Your task to perform on an android device: Open privacy settings Image 0: 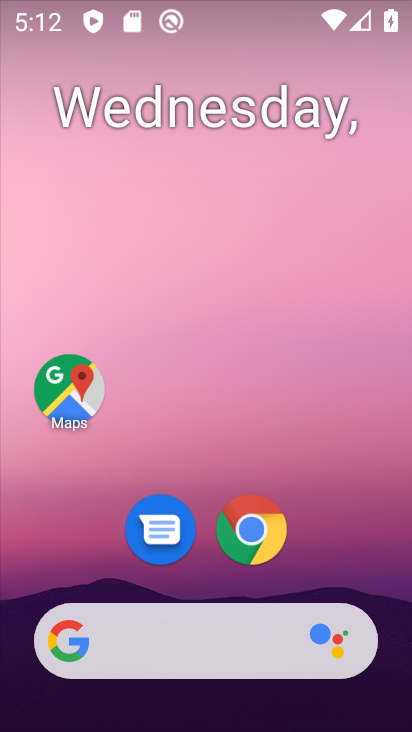
Step 0: drag from (304, 359) to (286, 62)
Your task to perform on an android device: Open privacy settings Image 1: 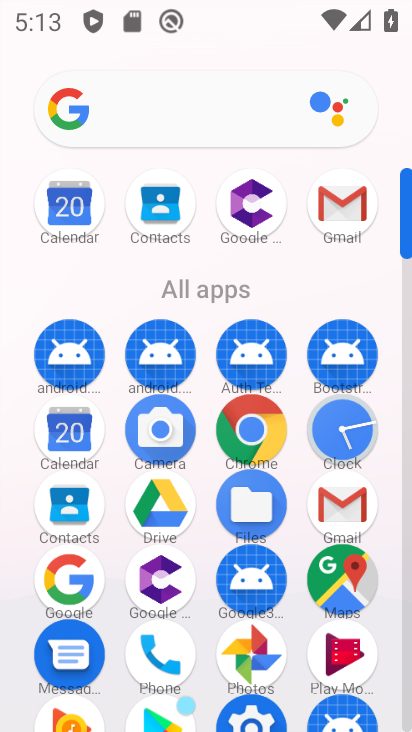
Step 1: drag from (17, 462) to (19, 188)
Your task to perform on an android device: Open privacy settings Image 2: 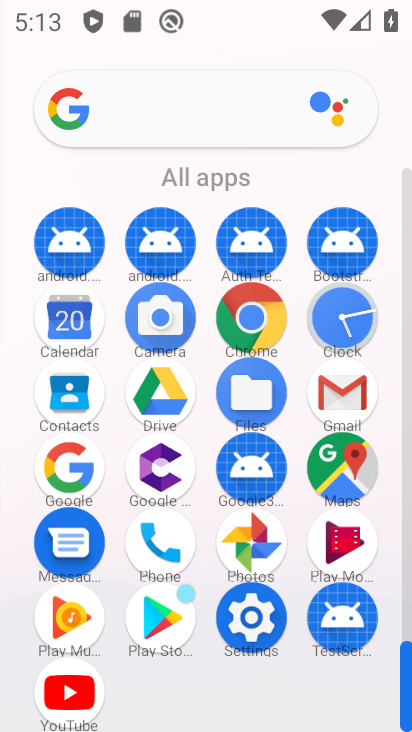
Step 2: click (246, 316)
Your task to perform on an android device: Open privacy settings Image 3: 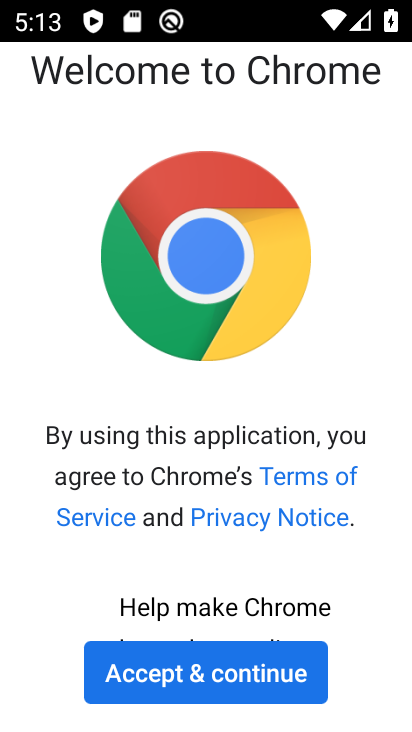
Step 3: click (227, 662)
Your task to perform on an android device: Open privacy settings Image 4: 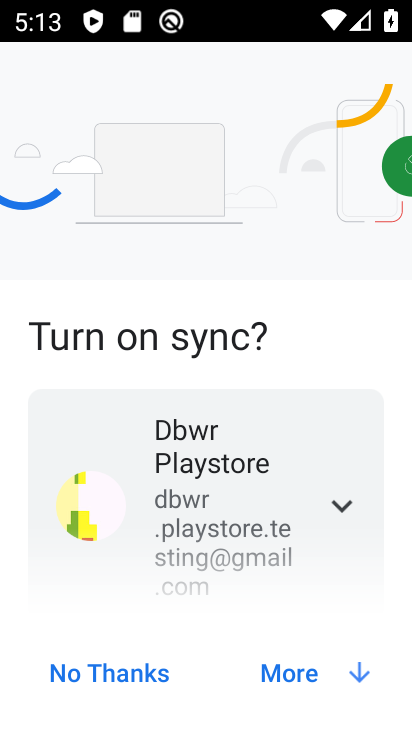
Step 4: click (284, 672)
Your task to perform on an android device: Open privacy settings Image 5: 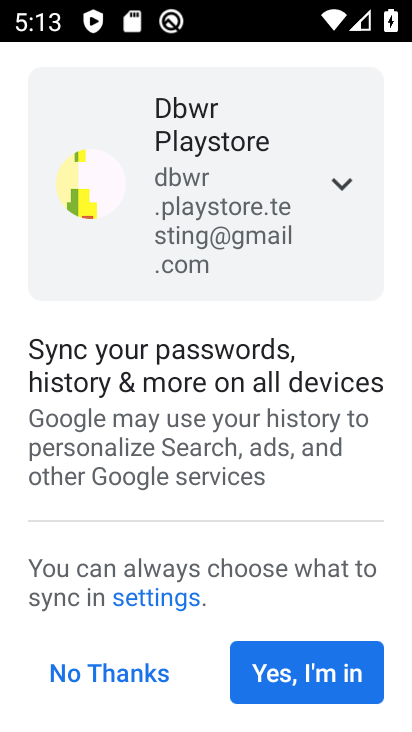
Step 5: click (296, 668)
Your task to perform on an android device: Open privacy settings Image 6: 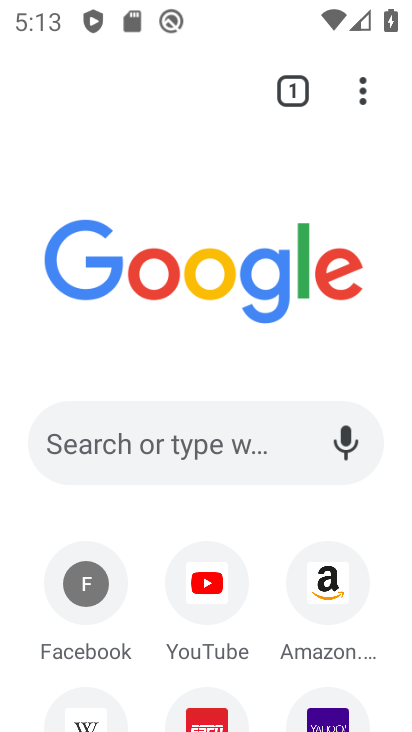
Step 6: drag from (361, 95) to (130, 554)
Your task to perform on an android device: Open privacy settings Image 7: 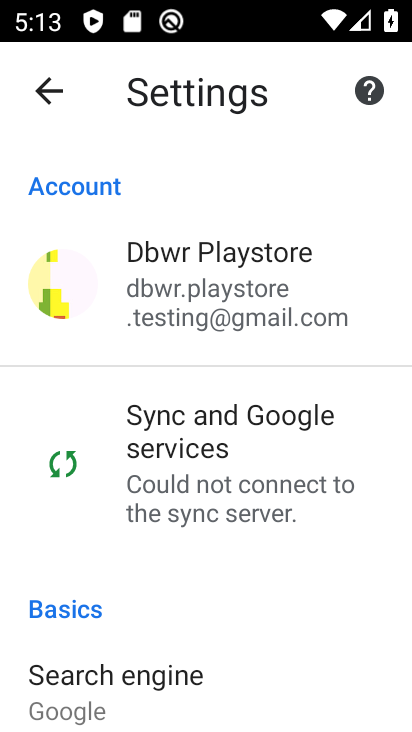
Step 7: drag from (199, 562) to (242, 260)
Your task to perform on an android device: Open privacy settings Image 8: 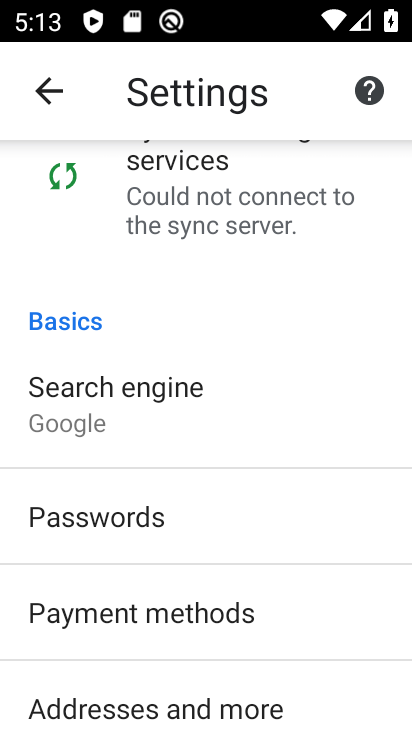
Step 8: drag from (223, 512) to (257, 235)
Your task to perform on an android device: Open privacy settings Image 9: 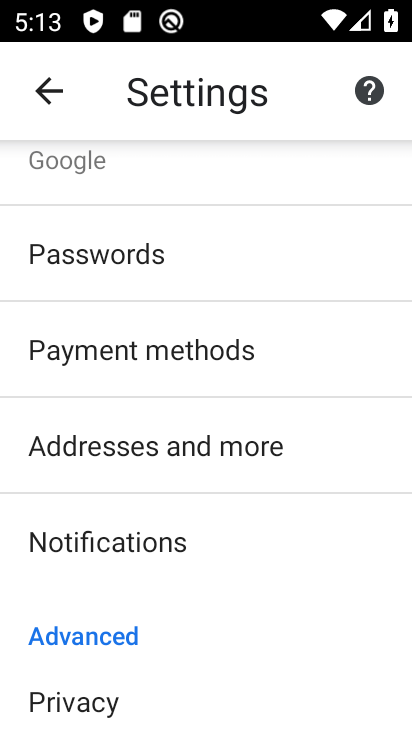
Step 9: drag from (238, 463) to (251, 178)
Your task to perform on an android device: Open privacy settings Image 10: 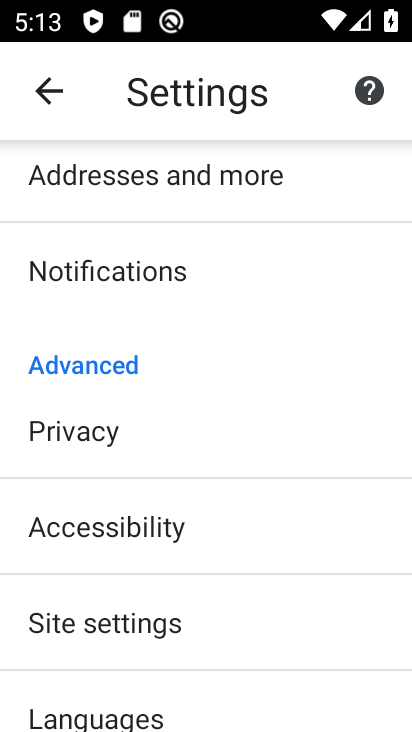
Step 10: click (136, 432)
Your task to perform on an android device: Open privacy settings Image 11: 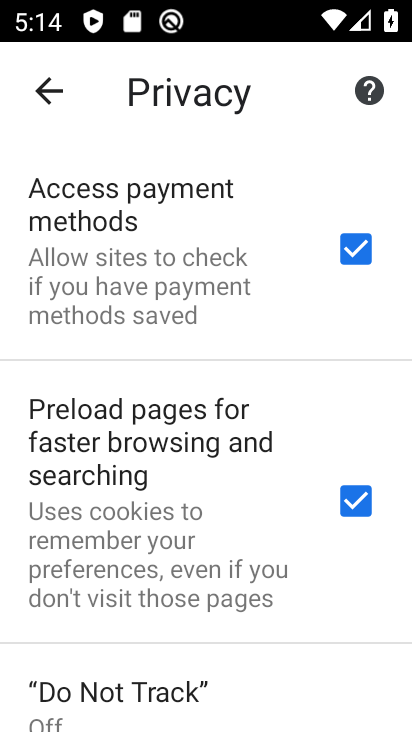
Step 11: task complete